Your task to perform on an android device: move a message to another label in the gmail app Image 0: 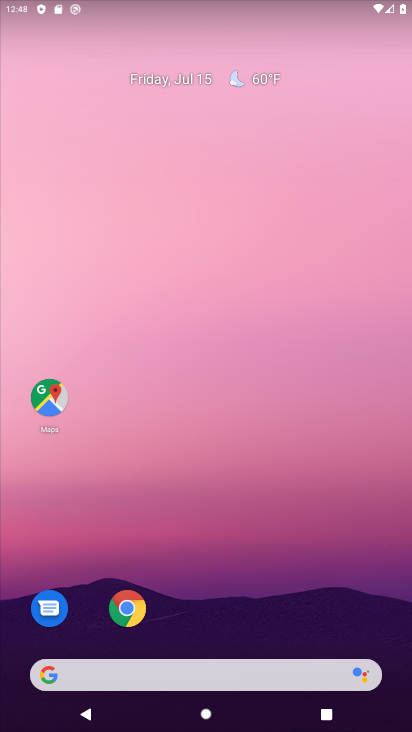
Step 0: press home button
Your task to perform on an android device: move a message to another label in the gmail app Image 1: 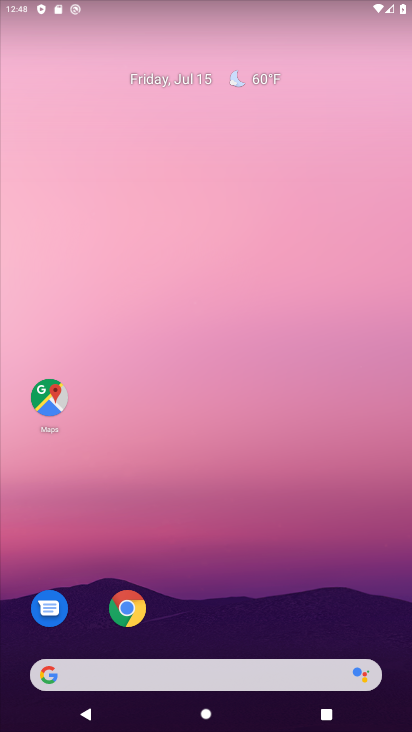
Step 1: drag from (261, 645) to (221, 221)
Your task to perform on an android device: move a message to another label in the gmail app Image 2: 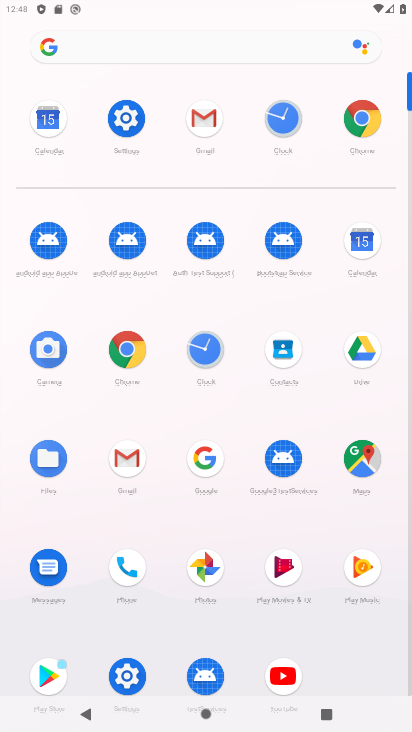
Step 2: click (116, 452)
Your task to perform on an android device: move a message to another label in the gmail app Image 3: 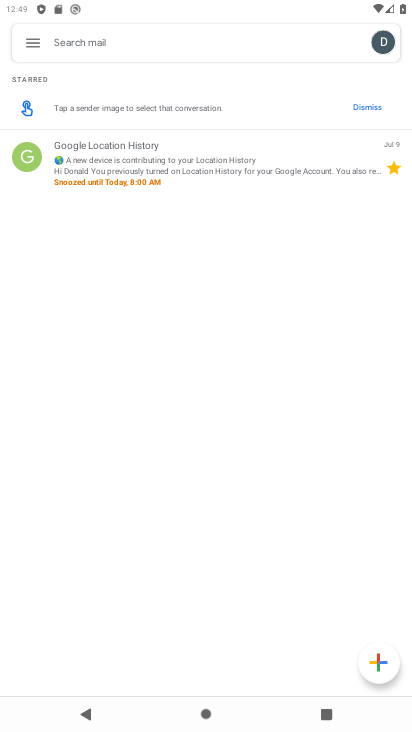
Step 3: click (192, 186)
Your task to perform on an android device: move a message to another label in the gmail app Image 4: 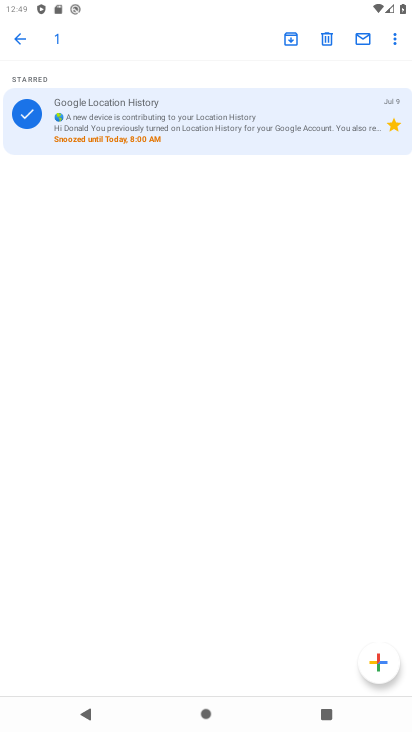
Step 4: click (391, 35)
Your task to perform on an android device: move a message to another label in the gmail app Image 5: 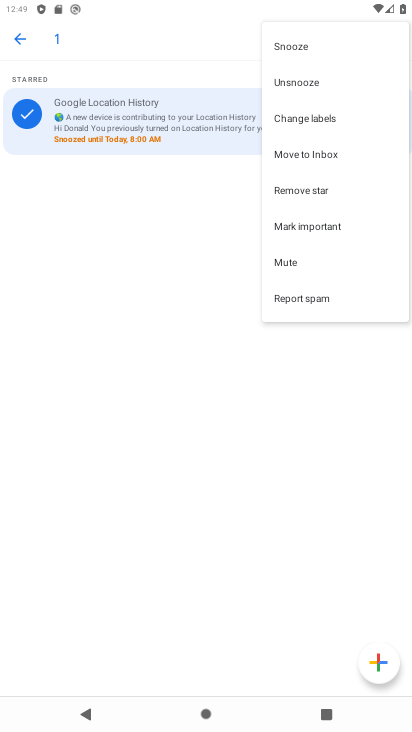
Step 5: task complete